Your task to perform on an android device: change the upload size in google photos Image 0: 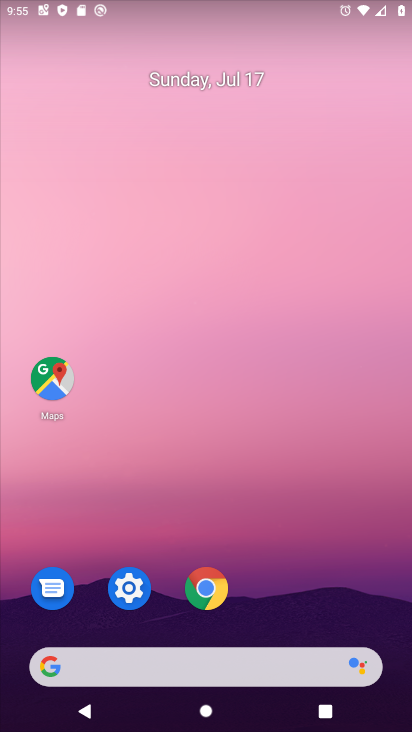
Step 0: drag from (260, 511) to (280, 6)
Your task to perform on an android device: change the upload size in google photos Image 1: 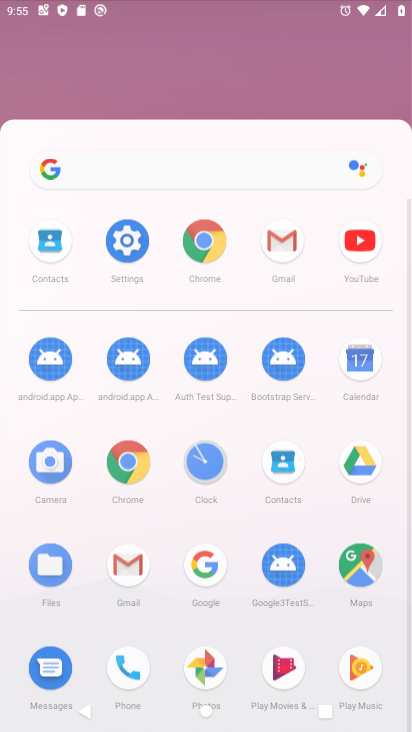
Step 1: drag from (203, 525) to (193, 14)
Your task to perform on an android device: change the upload size in google photos Image 2: 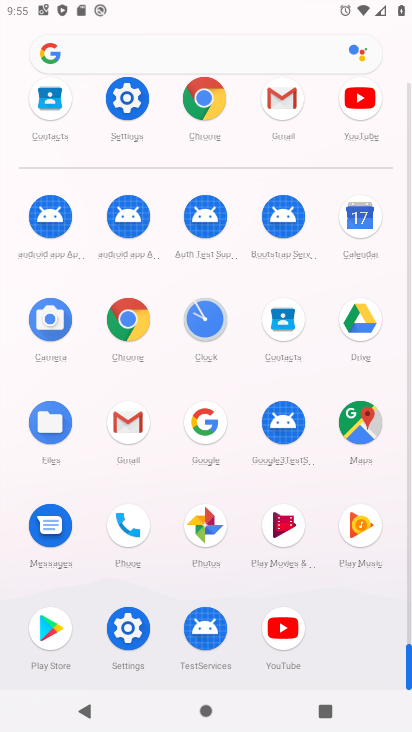
Step 2: click (203, 534)
Your task to perform on an android device: change the upload size in google photos Image 3: 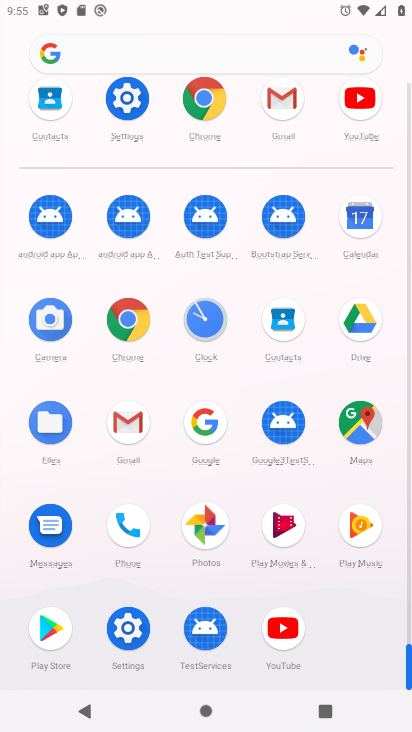
Step 3: click (204, 534)
Your task to perform on an android device: change the upload size in google photos Image 4: 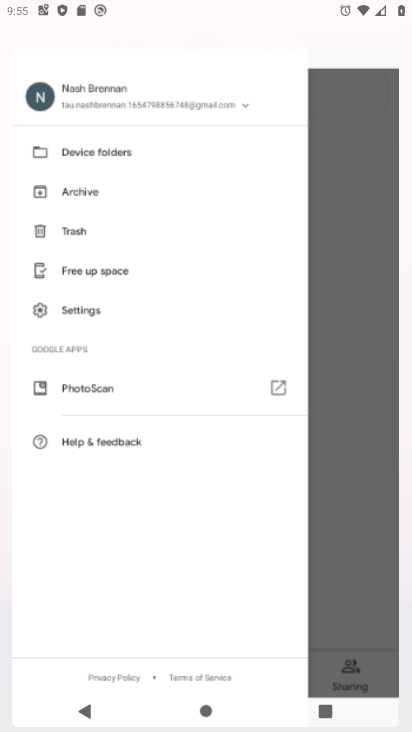
Step 4: click (204, 534)
Your task to perform on an android device: change the upload size in google photos Image 5: 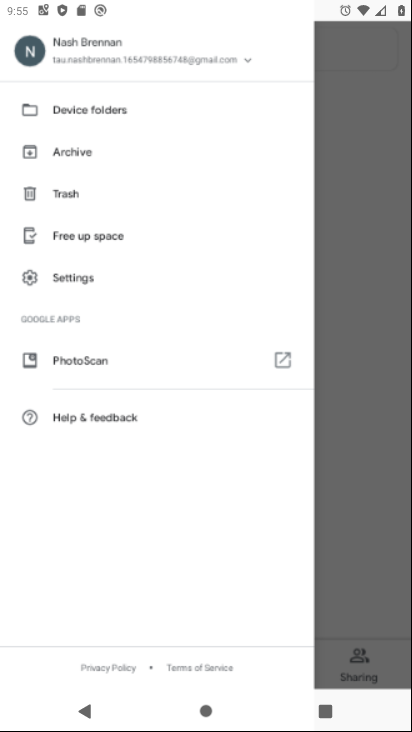
Step 5: click (206, 534)
Your task to perform on an android device: change the upload size in google photos Image 6: 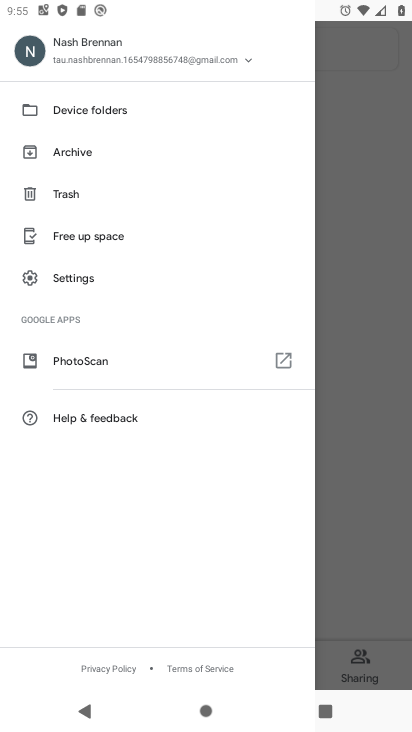
Step 6: click (209, 527)
Your task to perform on an android device: change the upload size in google photos Image 7: 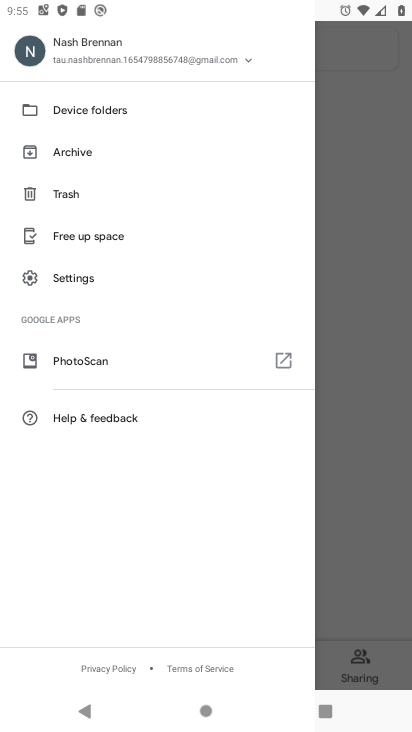
Step 7: click (74, 280)
Your task to perform on an android device: change the upload size in google photos Image 8: 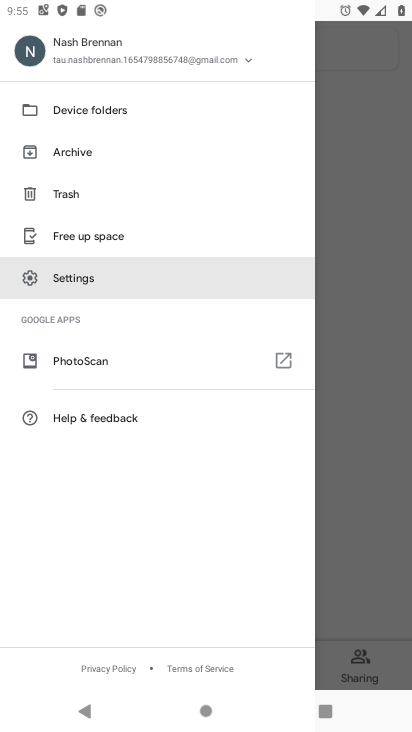
Step 8: click (74, 280)
Your task to perform on an android device: change the upload size in google photos Image 9: 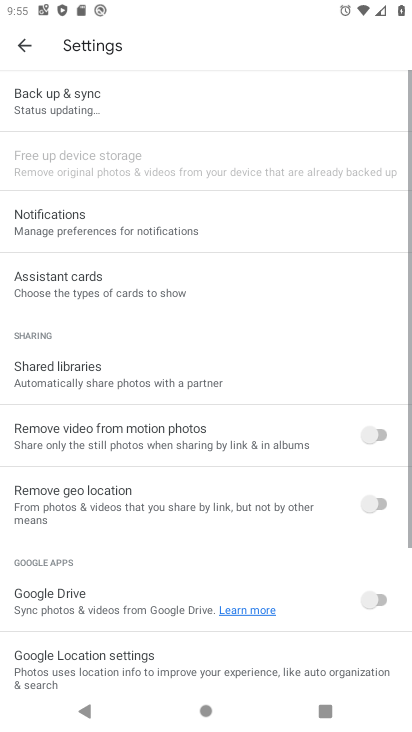
Step 9: click (74, 280)
Your task to perform on an android device: change the upload size in google photos Image 10: 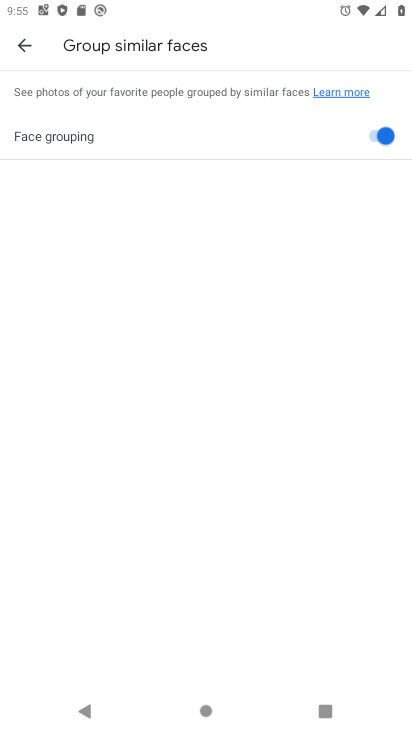
Step 10: click (20, 38)
Your task to perform on an android device: change the upload size in google photos Image 11: 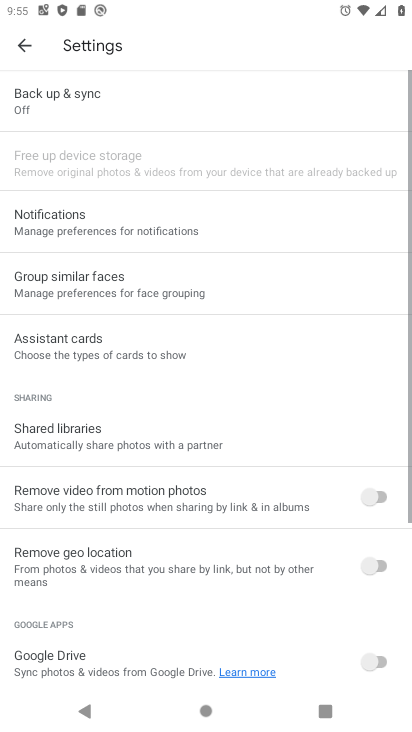
Step 11: click (54, 106)
Your task to perform on an android device: change the upload size in google photos Image 12: 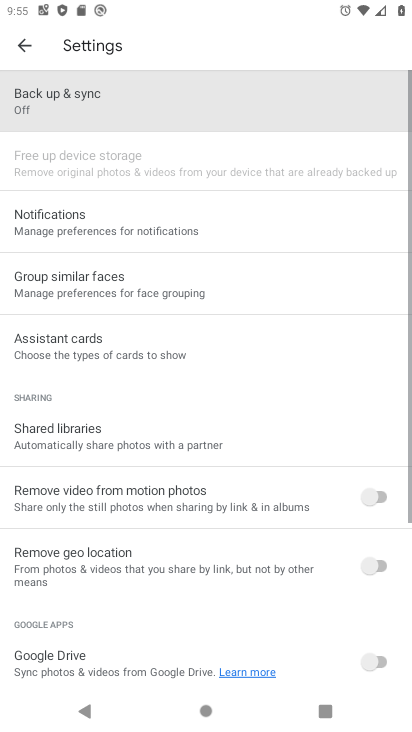
Step 12: click (53, 105)
Your task to perform on an android device: change the upload size in google photos Image 13: 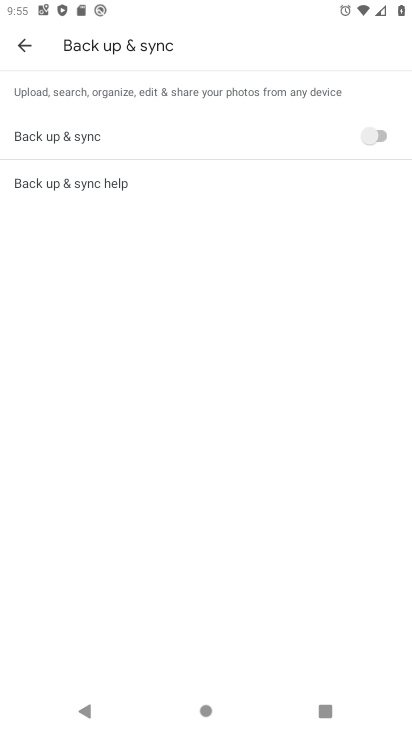
Step 13: click (367, 140)
Your task to perform on an android device: change the upload size in google photos Image 14: 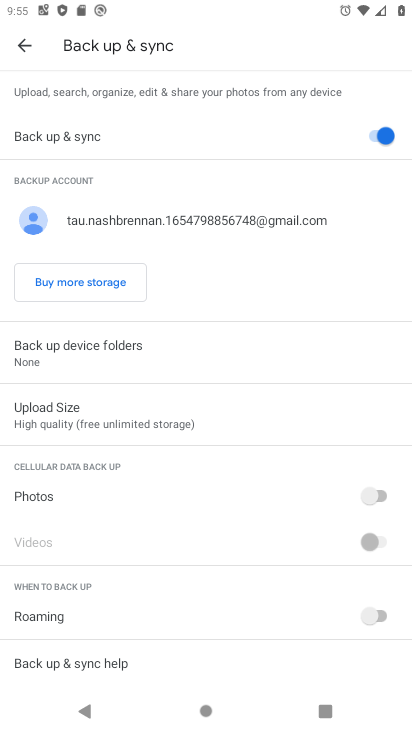
Step 14: click (57, 417)
Your task to perform on an android device: change the upload size in google photos Image 15: 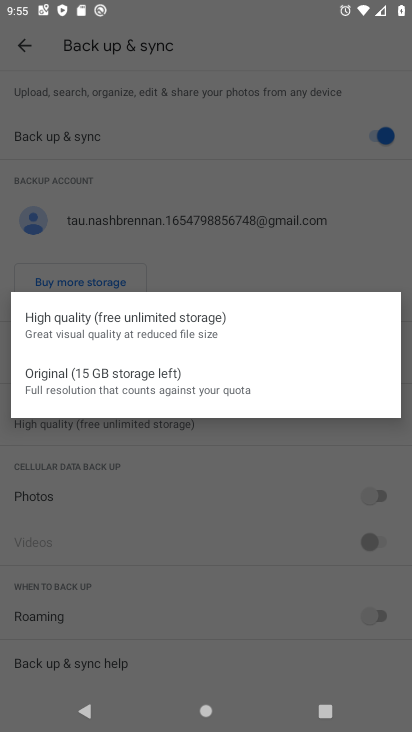
Step 15: click (60, 381)
Your task to perform on an android device: change the upload size in google photos Image 16: 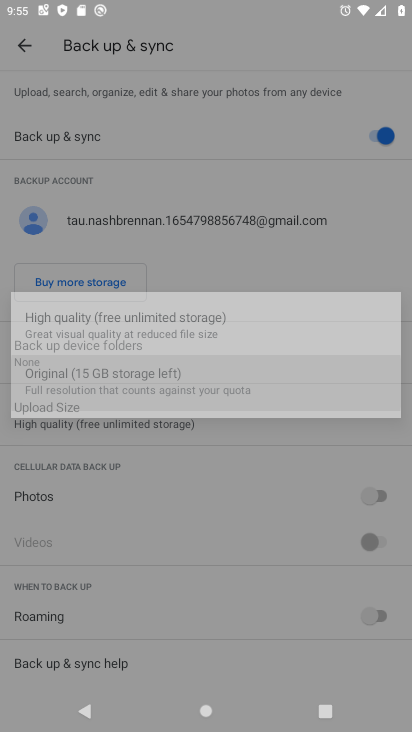
Step 16: click (56, 386)
Your task to perform on an android device: change the upload size in google photos Image 17: 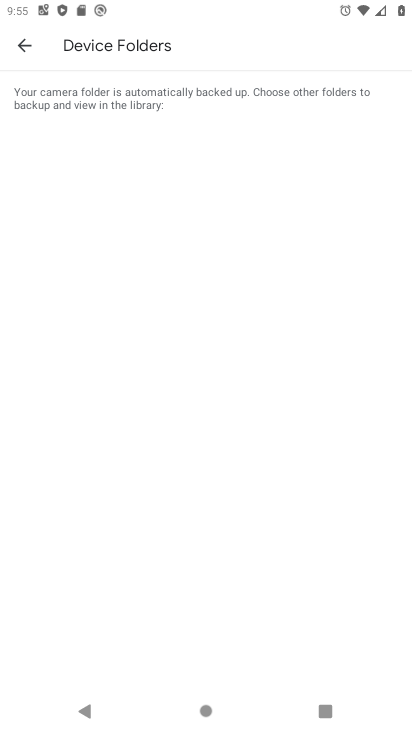
Step 17: task complete